Your task to perform on an android device: turn on bluetooth scan Image 0: 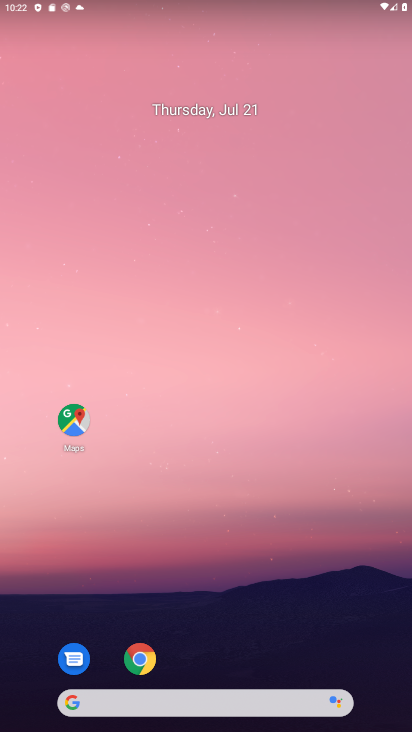
Step 0: drag from (313, 639) to (253, 14)
Your task to perform on an android device: turn on bluetooth scan Image 1: 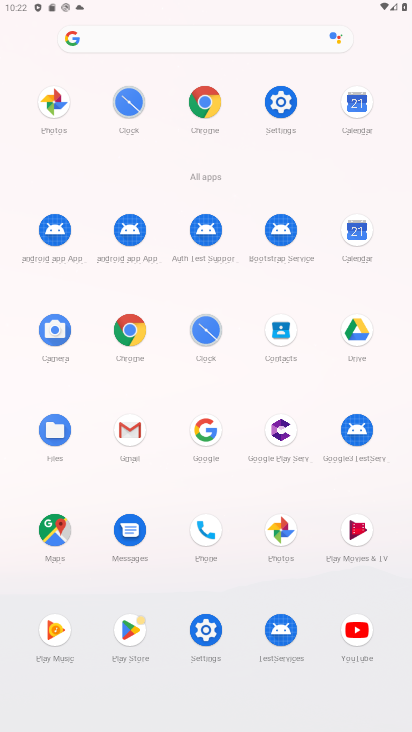
Step 1: click (298, 110)
Your task to perform on an android device: turn on bluetooth scan Image 2: 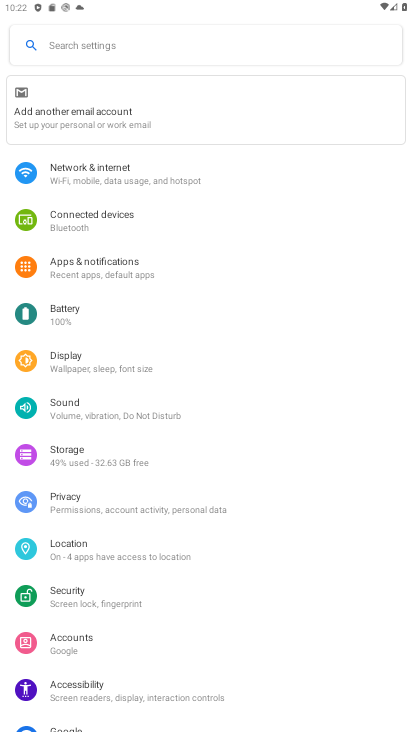
Step 2: click (184, 192)
Your task to perform on an android device: turn on bluetooth scan Image 3: 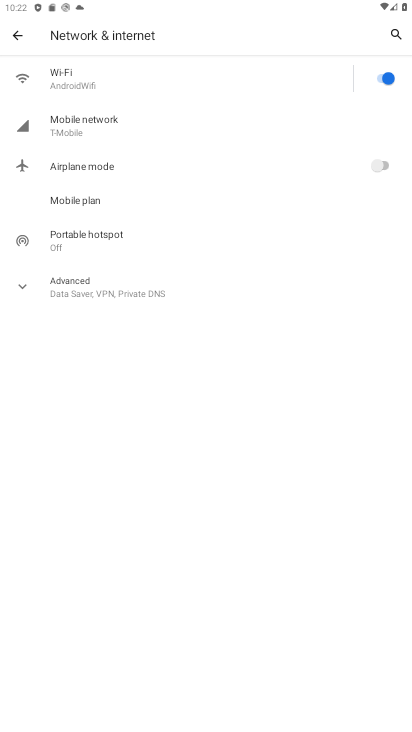
Step 3: task complete